Your task to perform on an android device: Open Yahoo.com Image 0: 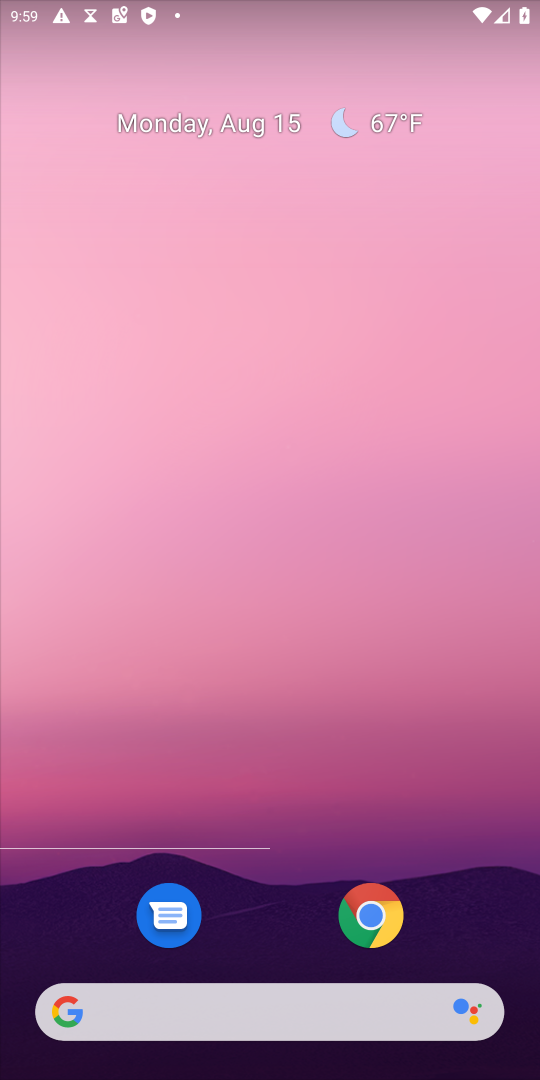
Step 0: press home button
Your task to perform on an android device: Open Yahoo.com Image 1: 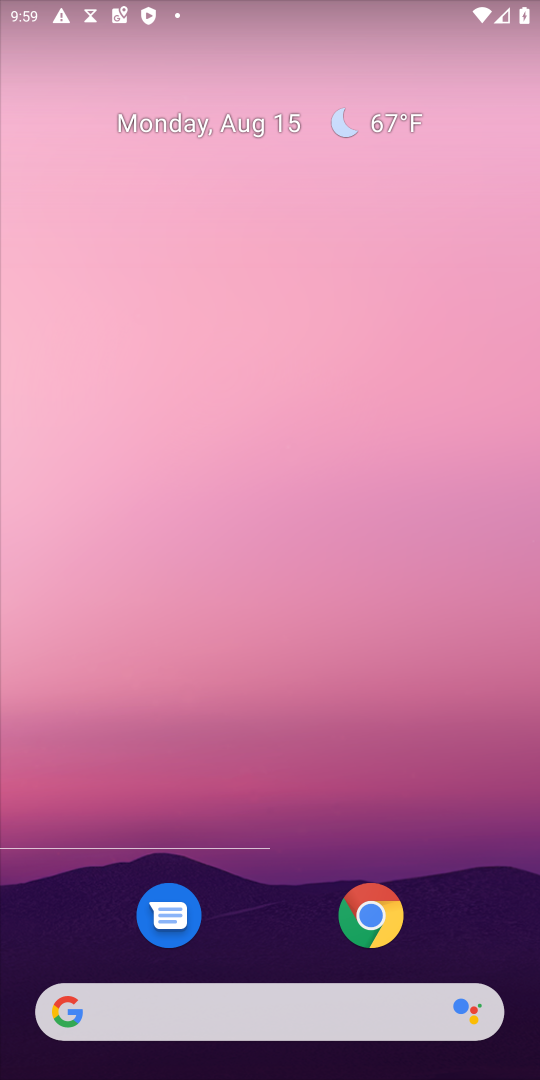
Step 1: click (69, 996)
Your task to perform on an android device: Open Yahoo.com Image 2: 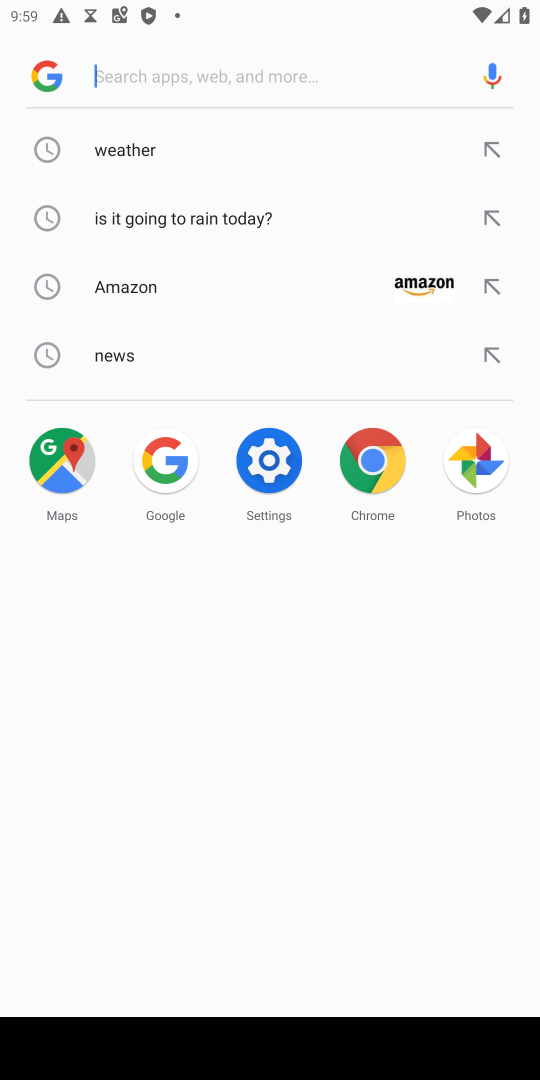
Step 2: type "Yahoo.com"
Your task to perform on an android device: Open Yahoo.com Image 3: 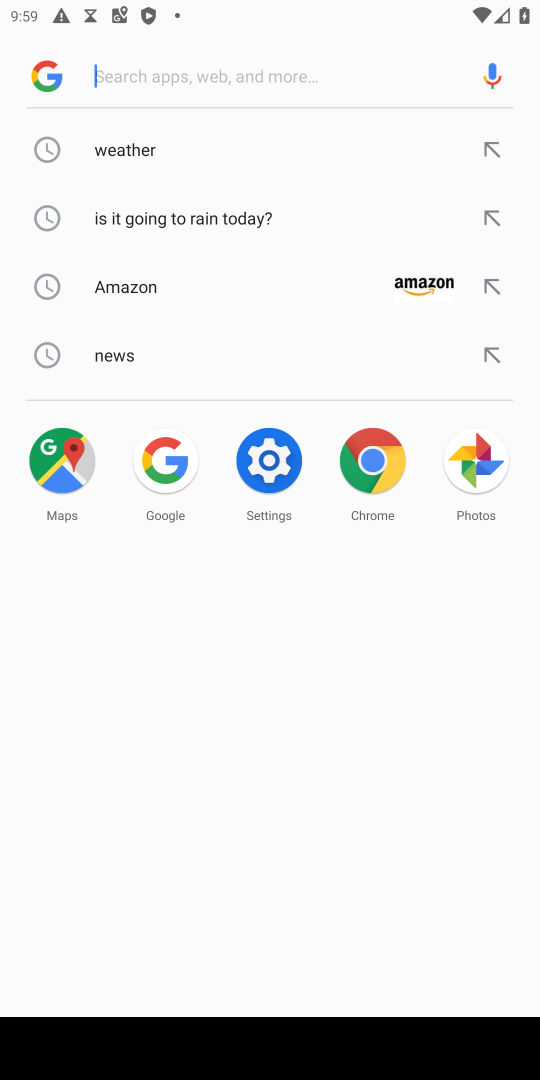
Step 3: click (151, 73)
Your task to perform on an android device: Open Yahoo.com Image 4: 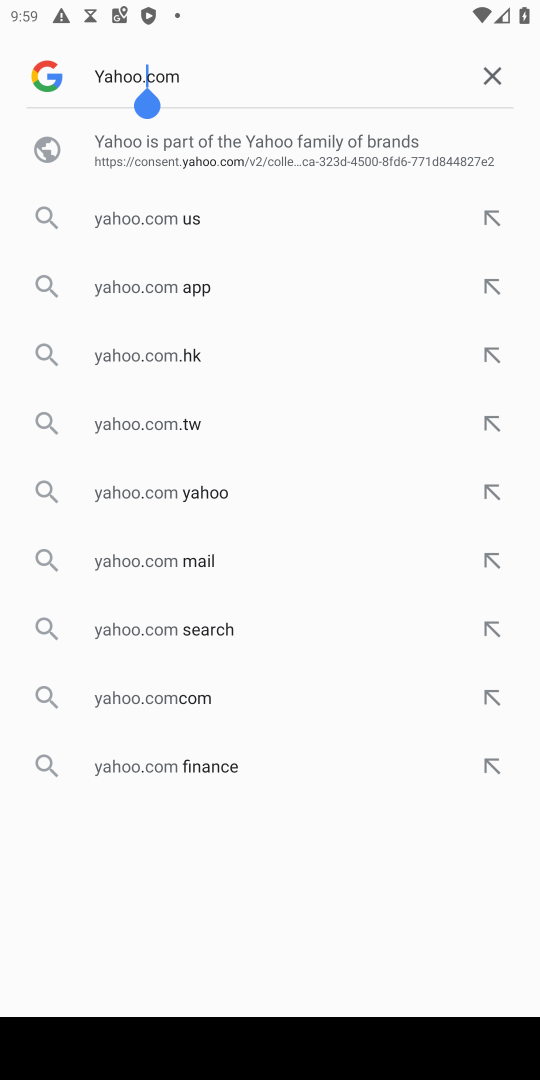
Step 4: press enter
Your task to perform on an android device: Open Yahoo.com Image 5: 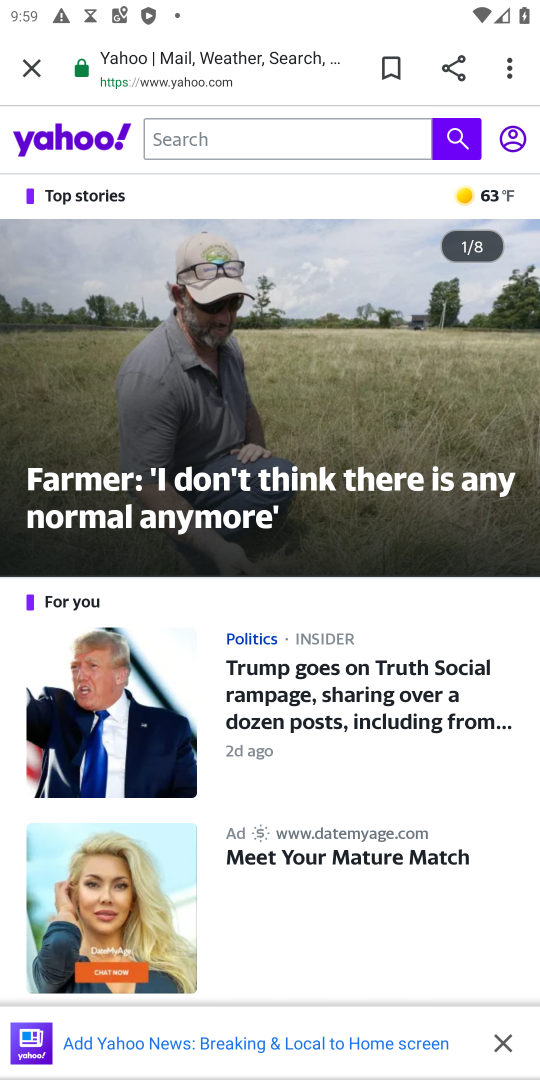
Step 5: task complete